Your task to perform on an android device: check the backup settings in the google photos Image 0: 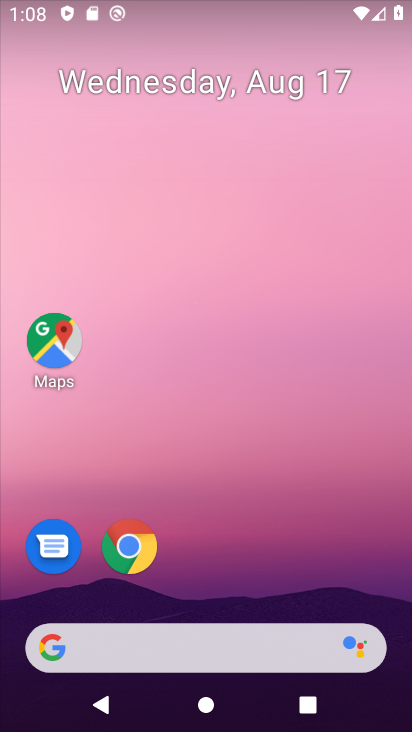
Step 0: drag from (215, 546) to (229, 204)
Your task to perform on an android device: check the backup settings in the google photos Image 1: 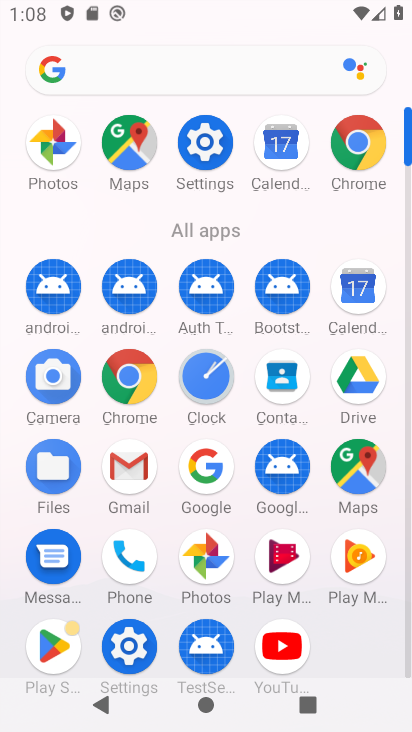
Step 1: click (60, 151)
Your task to perform on an android device: check the backup settings in the google photos Image 2: 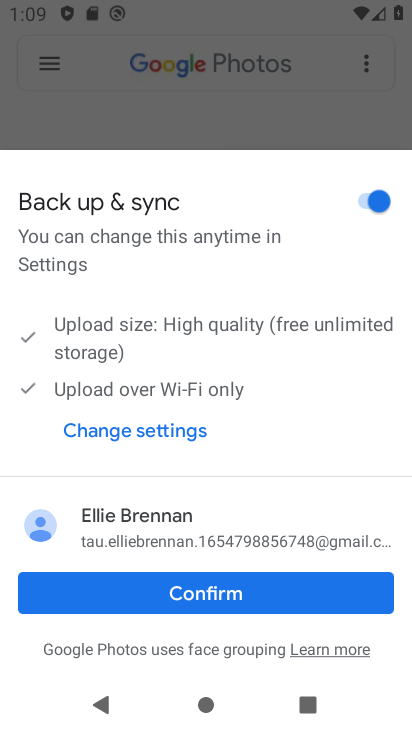
Step 2: click (201, 602)
Your task to perform on an android device: check the backup settings in the google photos Image 3: 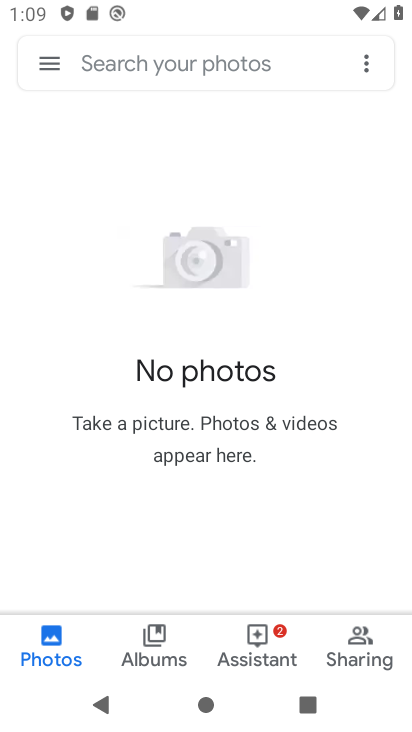
Step 3: click (38, 72)
Your task to perform on an android device: check the backup settings in the google photos Image 4: 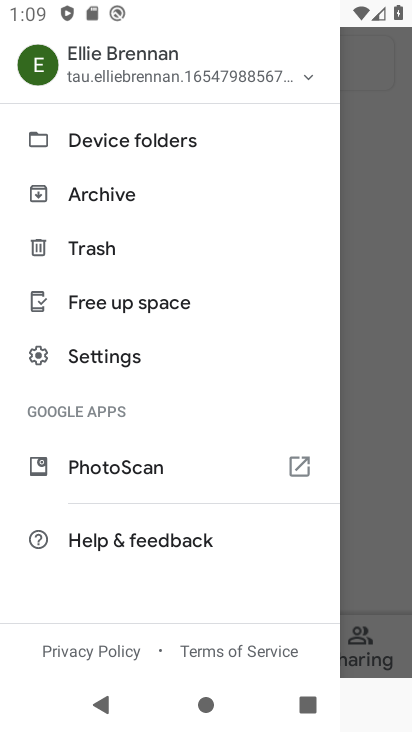
Step 4: click (109, 363)
Your task to perform on an android device: check the backup settings in the google photos Image 5: 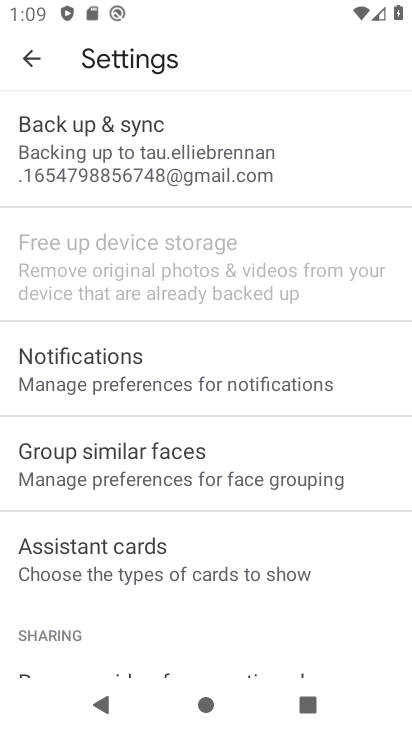
Step 5: click (117, 177)
Your task to perform on an android device: check the backup settings in the google photos Image 6: 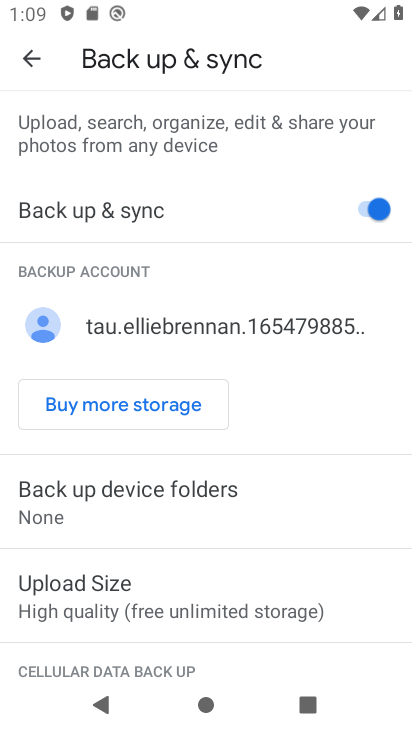
Step 6: task complete